Your task to perform on an android device: open app "Messages" (install if not already installed) Image 0: 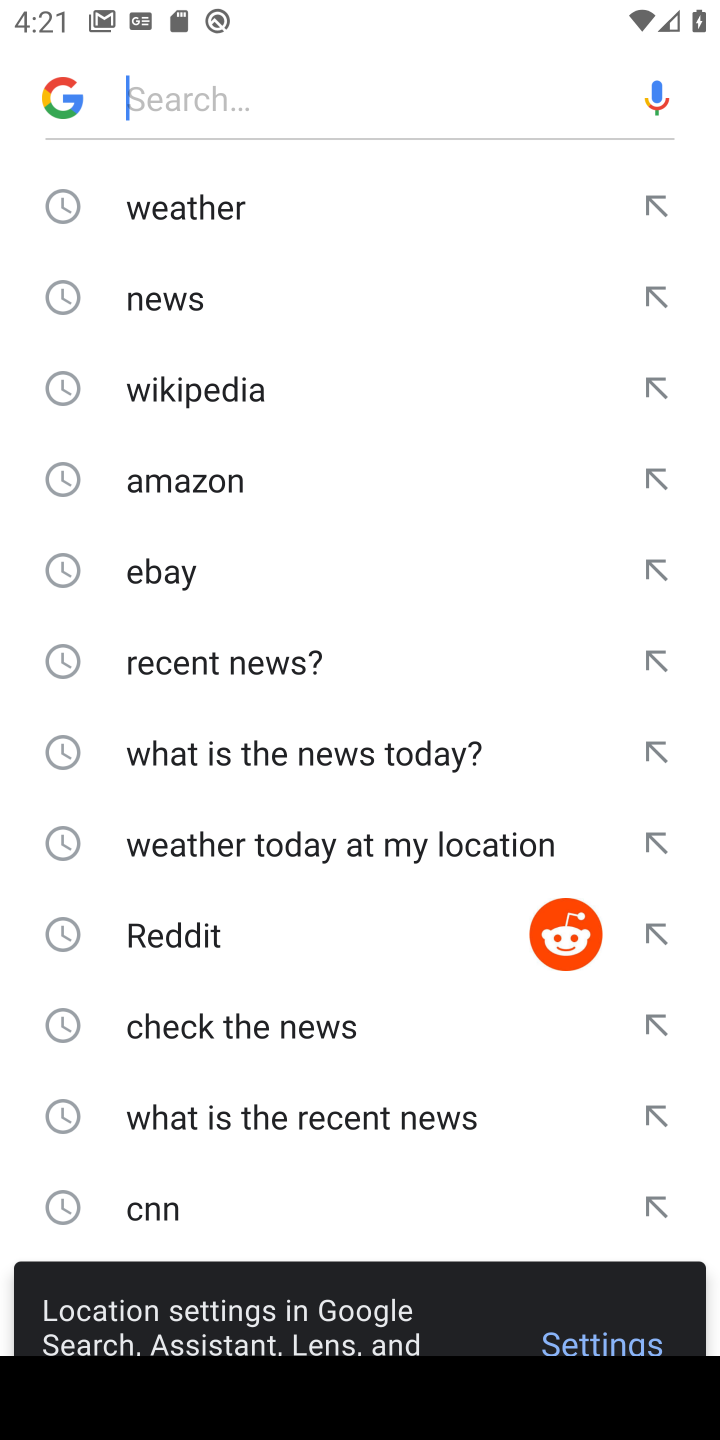
Step 0: press home button
Your task to perform on an android device: open app "Messages" (install if not already installed) Image 1: 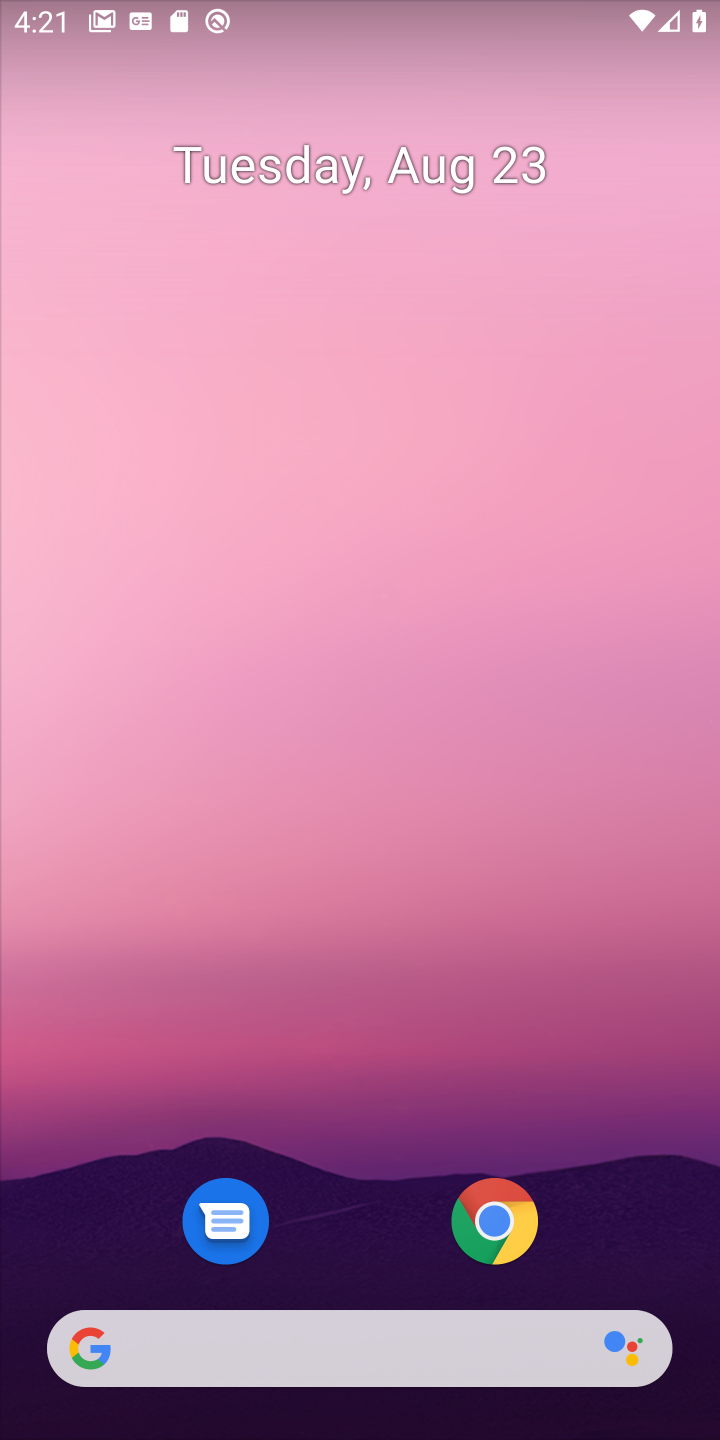
Step 1: drag from (353, 824) to (168, 330)
Your task to perform on an android device: open app "Messages" (install if not already installed) Image 2: 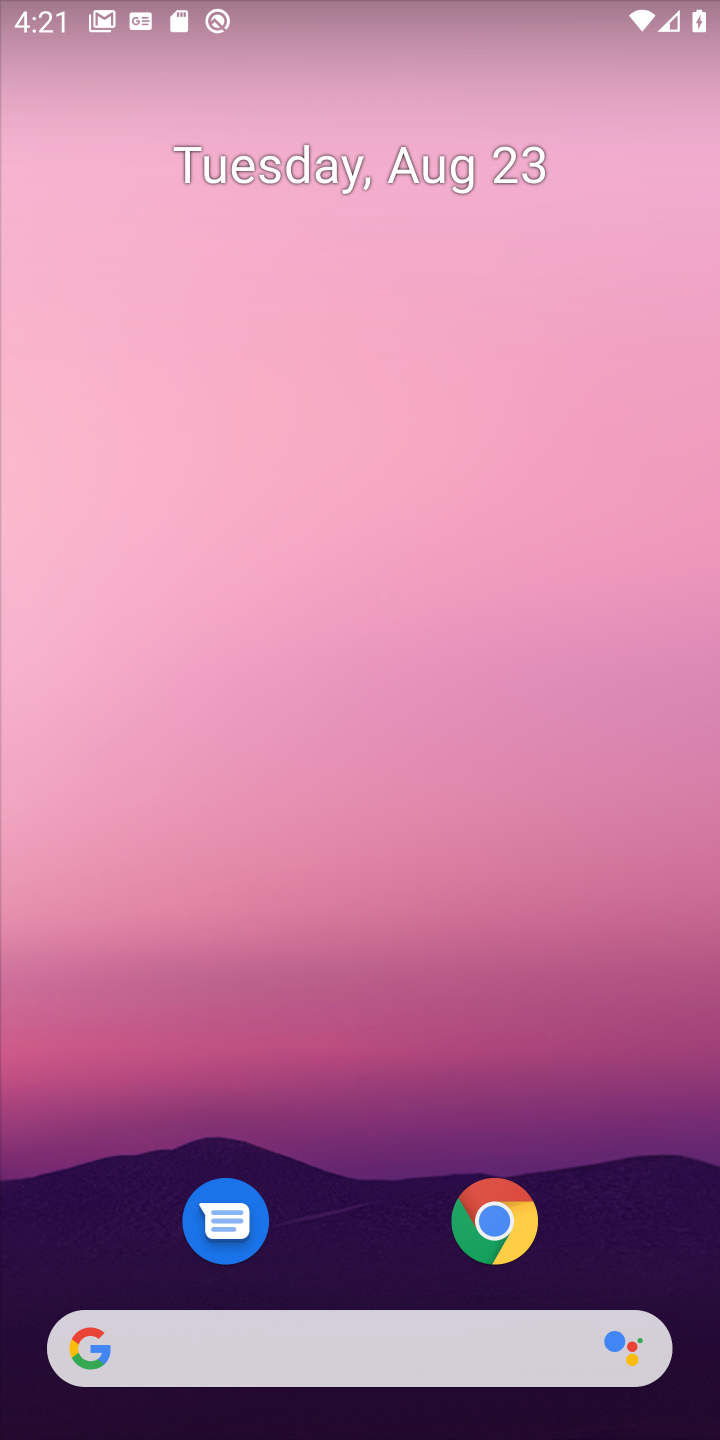
Step 2: click (331, 1125)
Your task to perform on an android device: open app "Messages" (install if not already installed) Image 3: 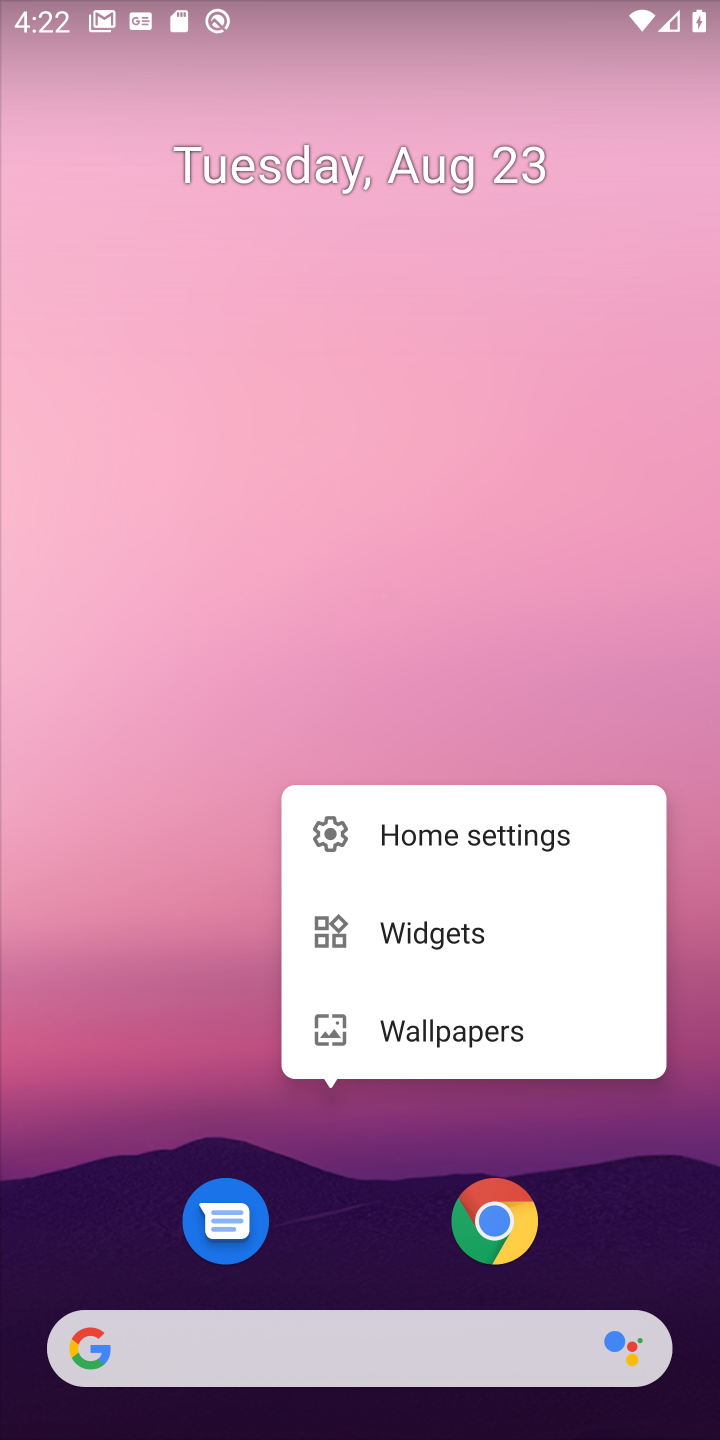
Step 3: click (316, 1222)
Your task to perform on an android device: open app "Messages" (install if not already installed) Image 4: 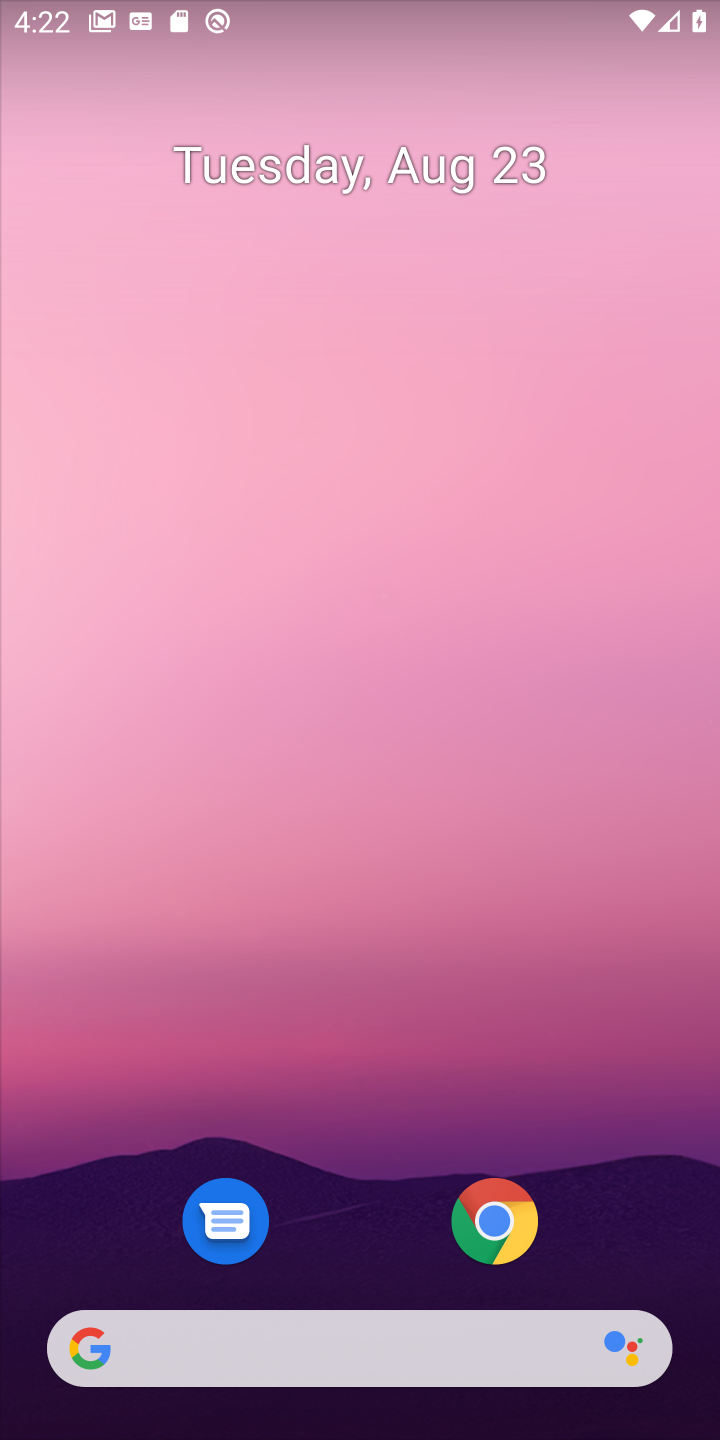
Step 4: click (412, 1220)
Your task to perform on an android device: open app "Messages" (install if not already installed) Image 5: 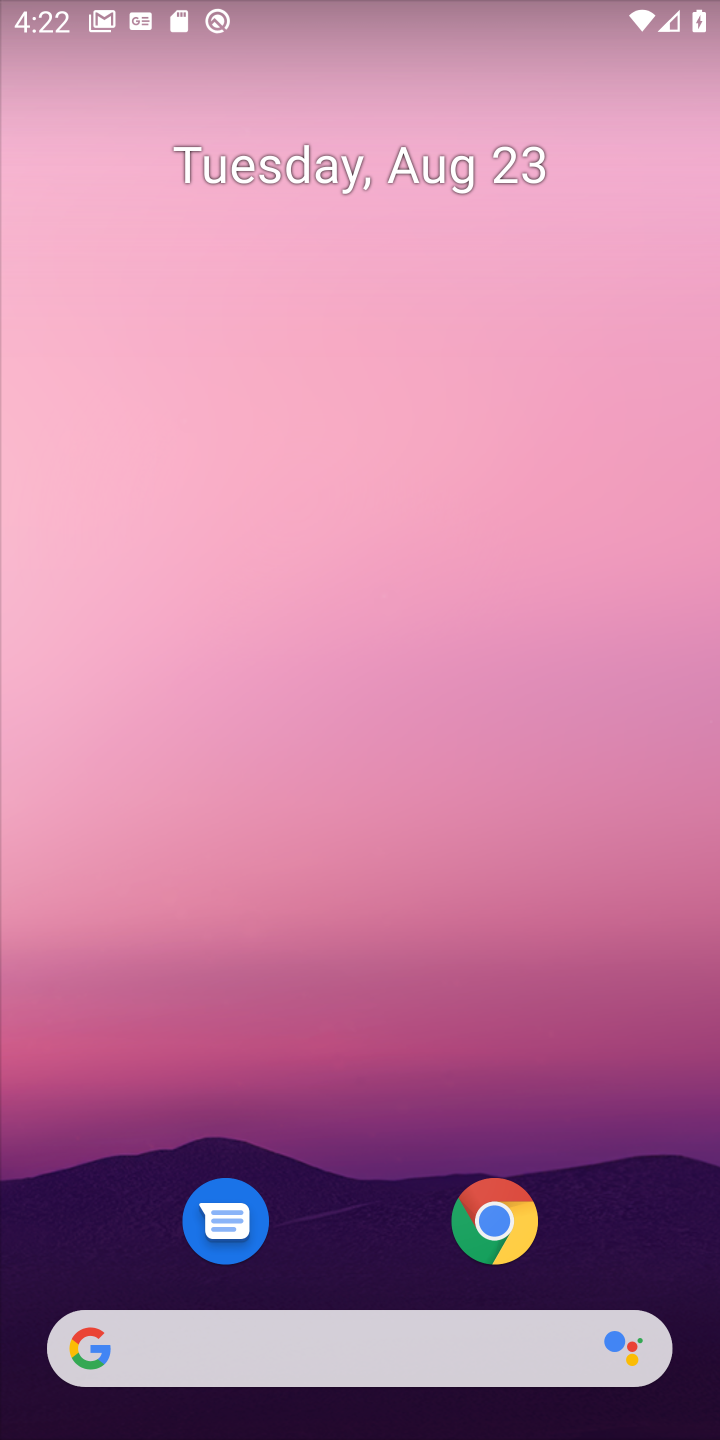
Step 5: drag from (333, 1135) to (305, 14)
Your task to perform on an android device: open app "Messages" (install if not already installed) Image 6: 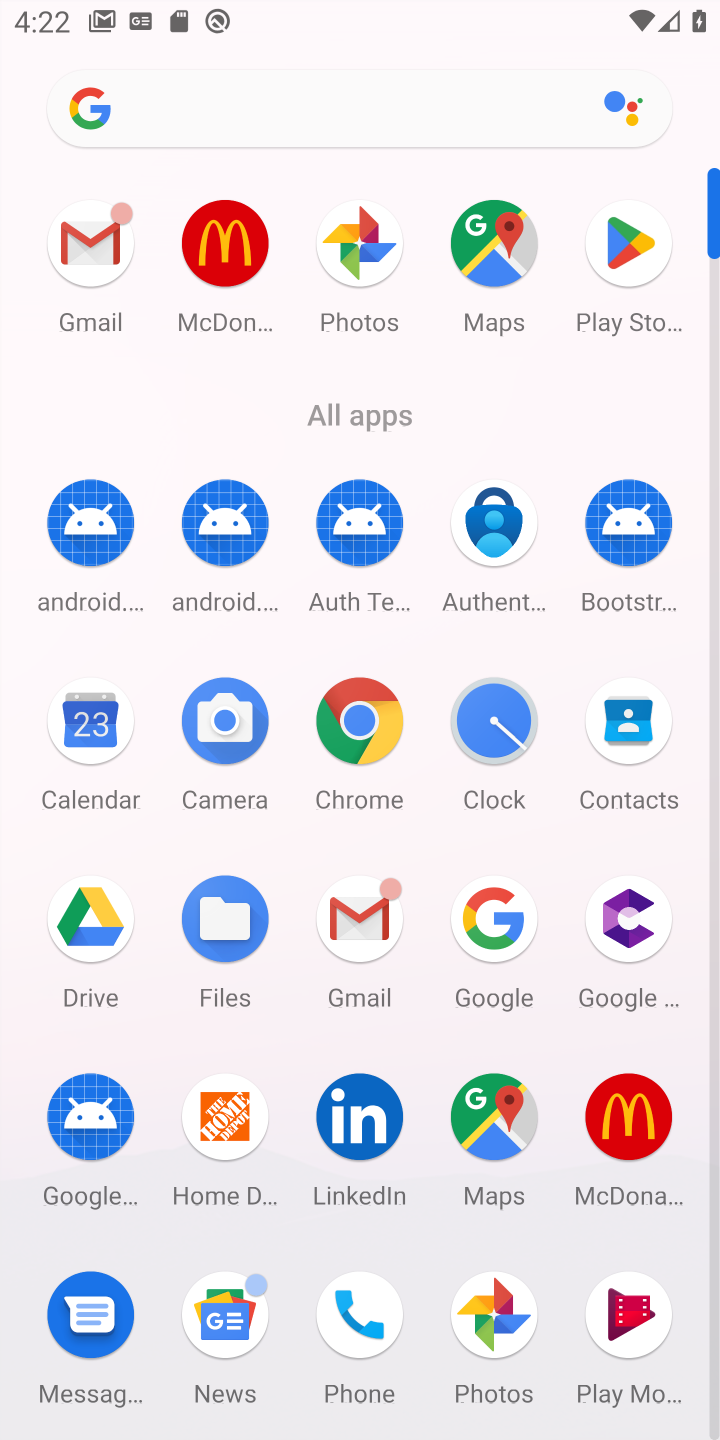
Step 6: click (623, 261)
Your task to perform on an android device: open app "Messages" (install if not already installed) Image 7: 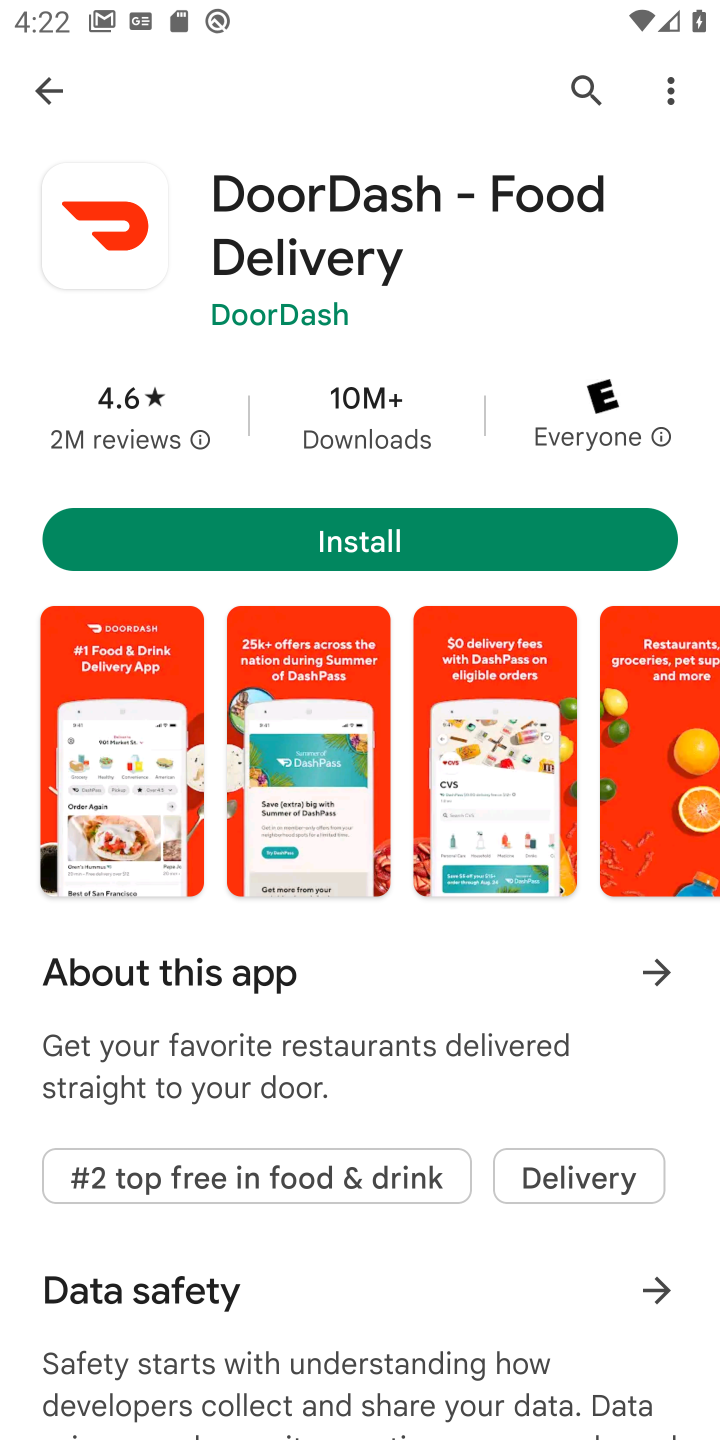
Step 7: click (46, 100)
Your task to perform on an android device: open app "Messages" (install if not already installed) Image 8: 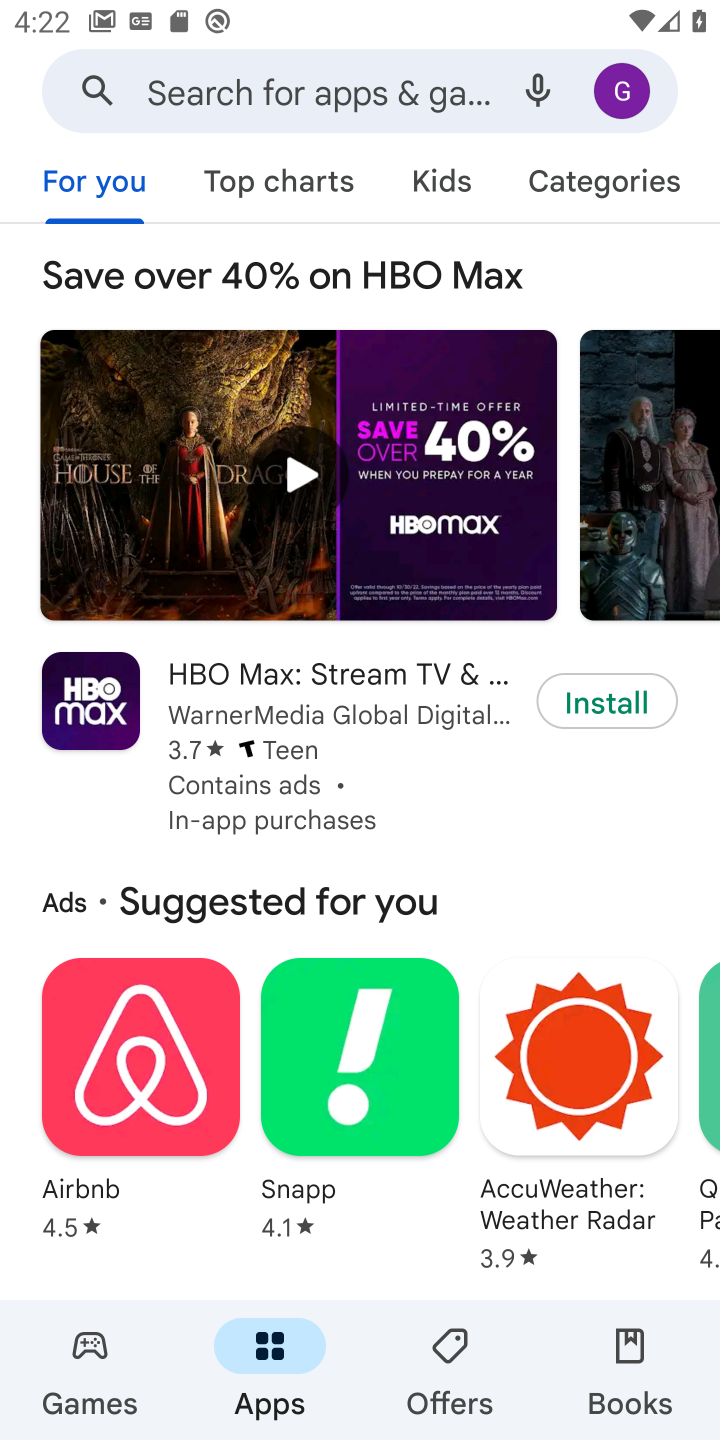
Step 8: click (233, 92)
Your task to perform on an android device: open app "Messages" (install if not already installed) Image 9: 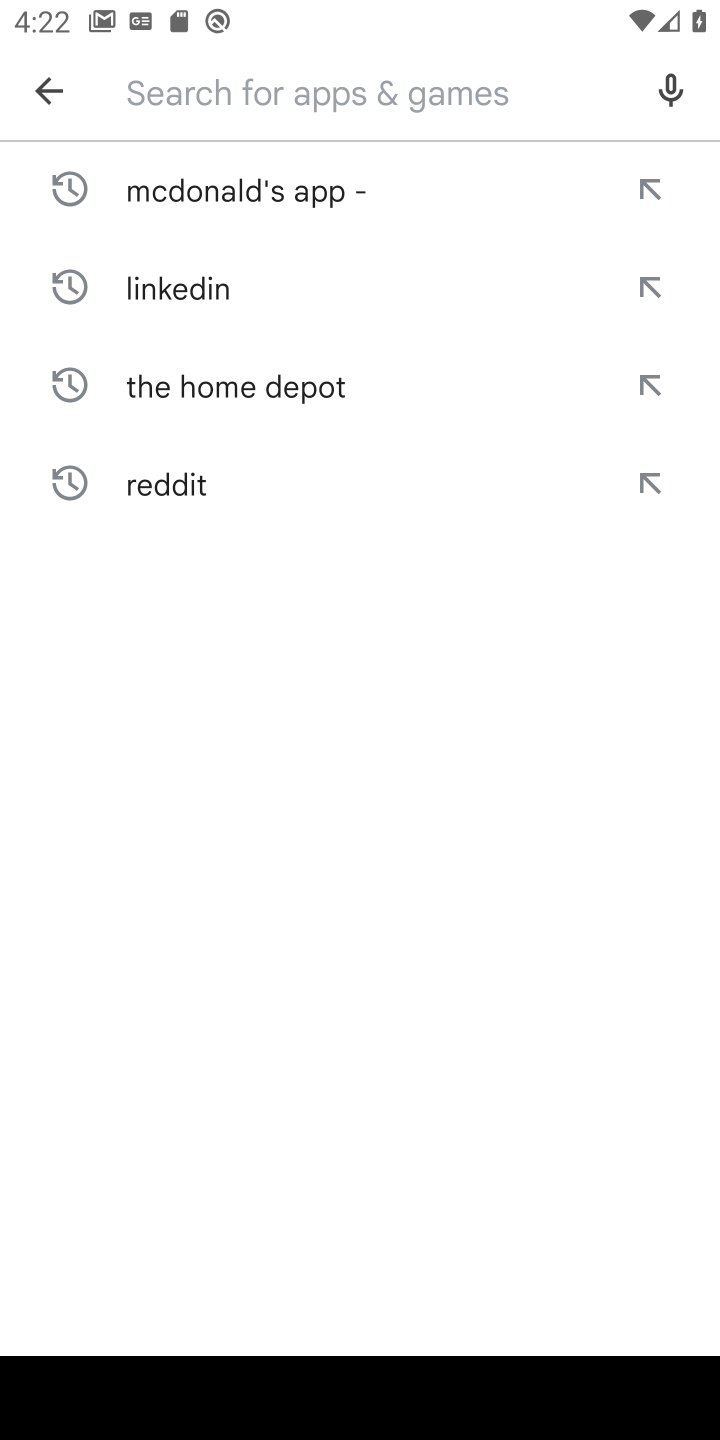
Step 9: type "Messages"
Your task to perform on an android device: open app "Messages" (install if not already installed) Image 10: 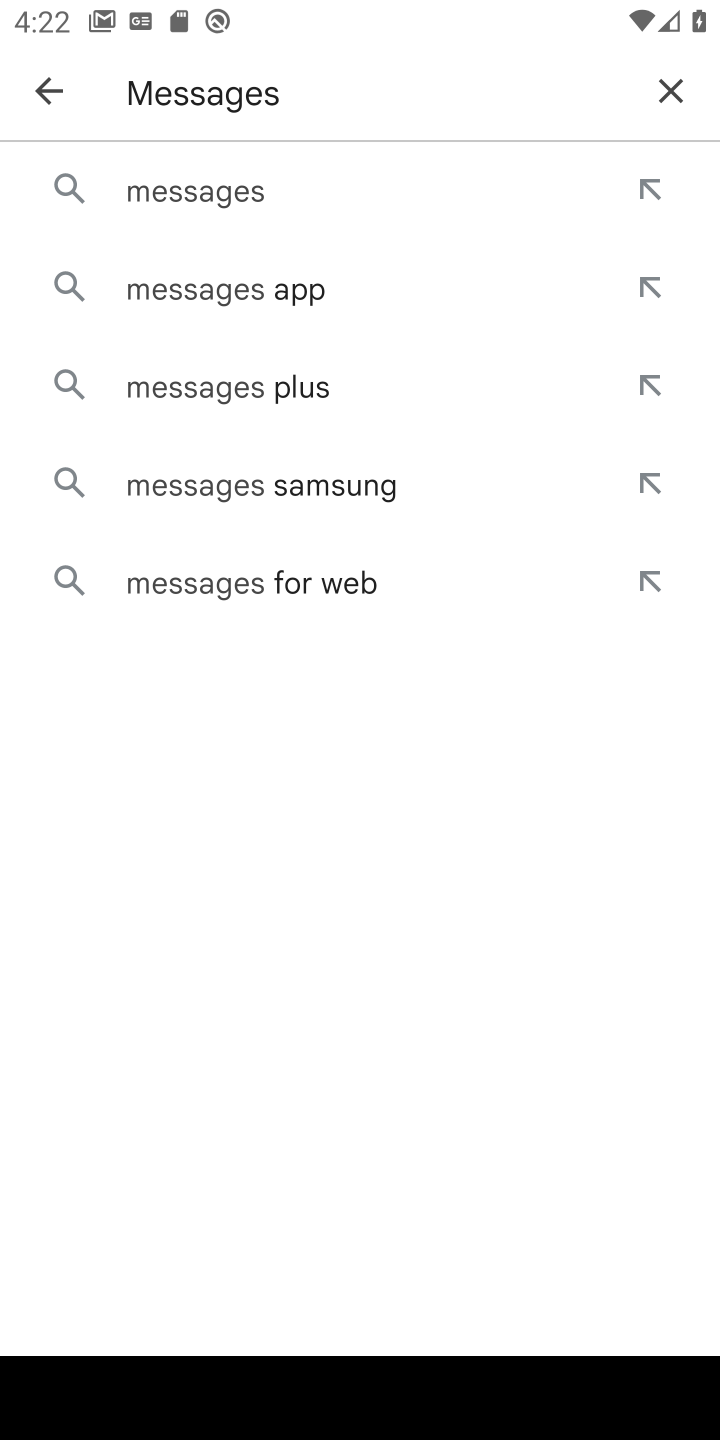
Step 10: click (184, 190)
Your task to perform on an android device: open app "Messages" (install if not already installed) Image 11: 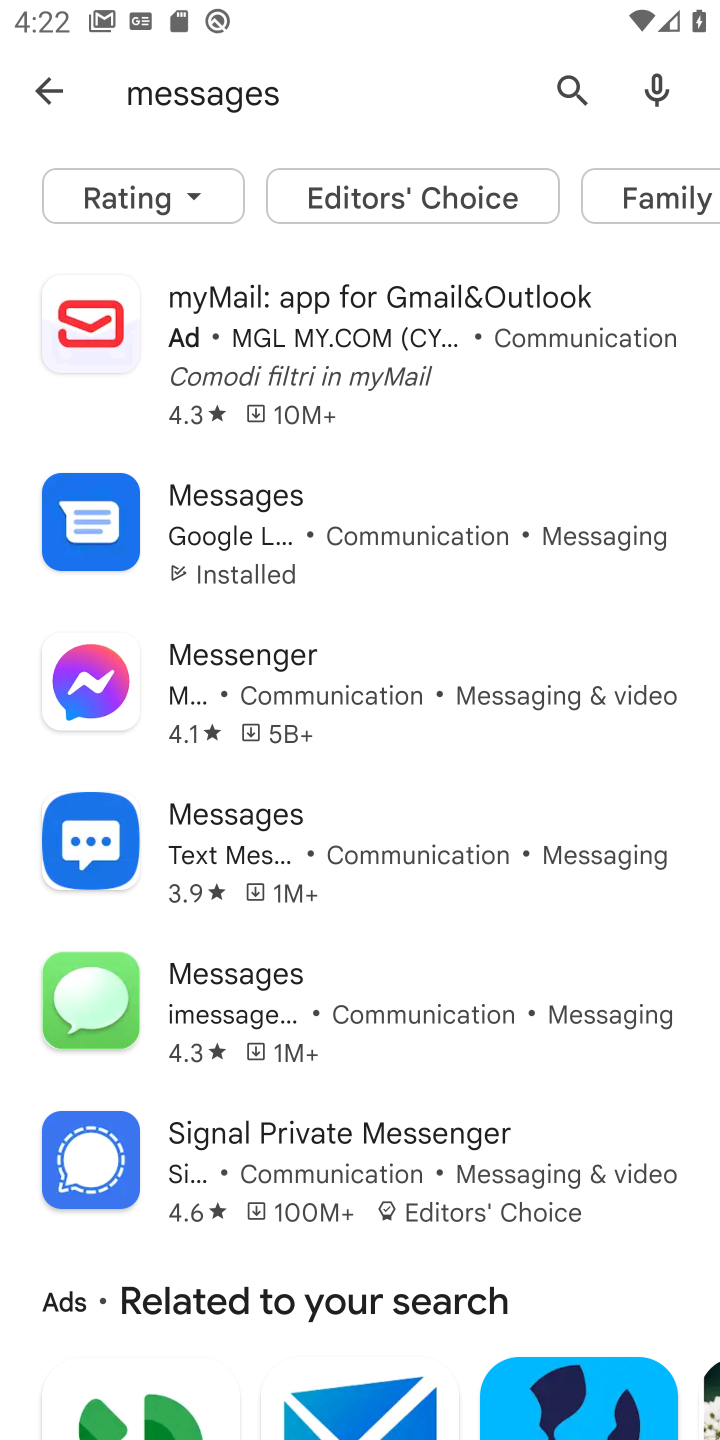
Step 11: click (242, 554)
Your task to perform on an android device: open app "Messages" (install if not already installed) Image 12: 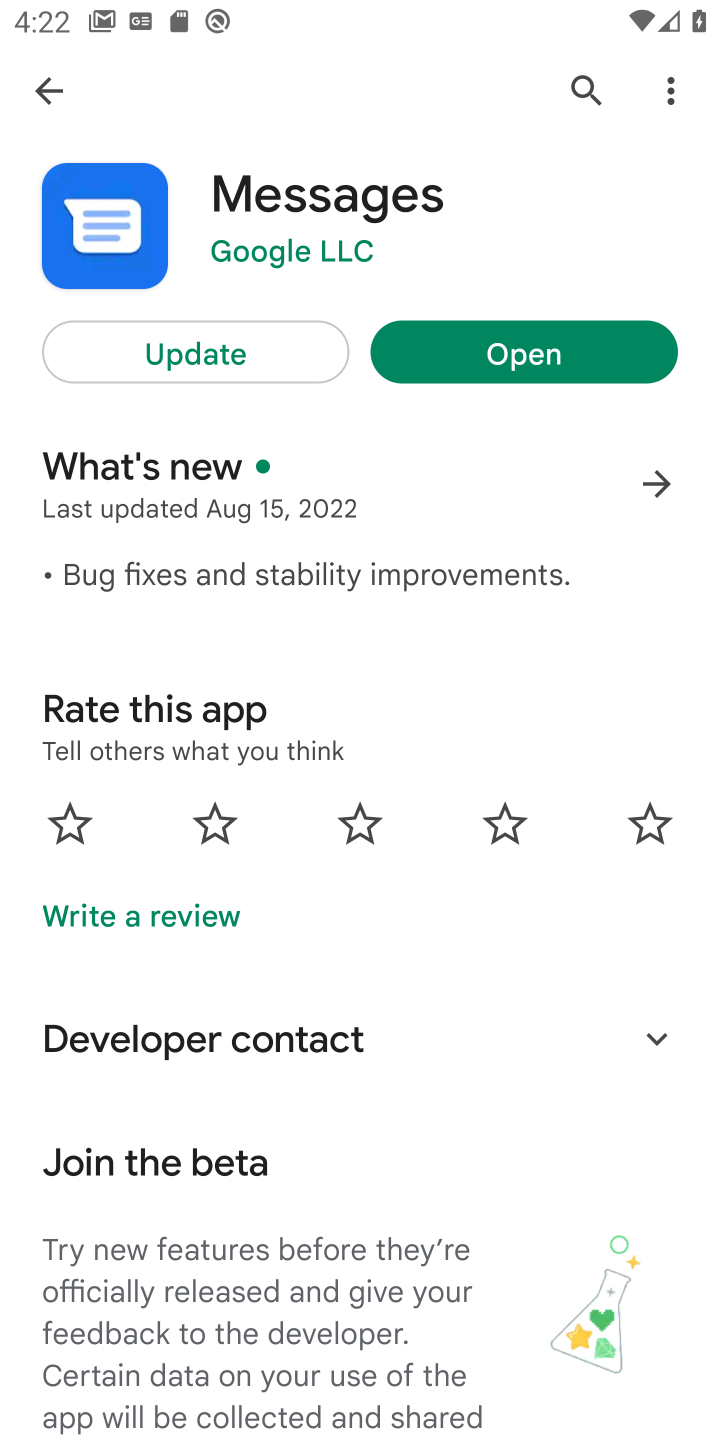
Step 12: click (491, 320)
Your task to perform on an android device: open app "Messages" (install if not already installed) Image 13: 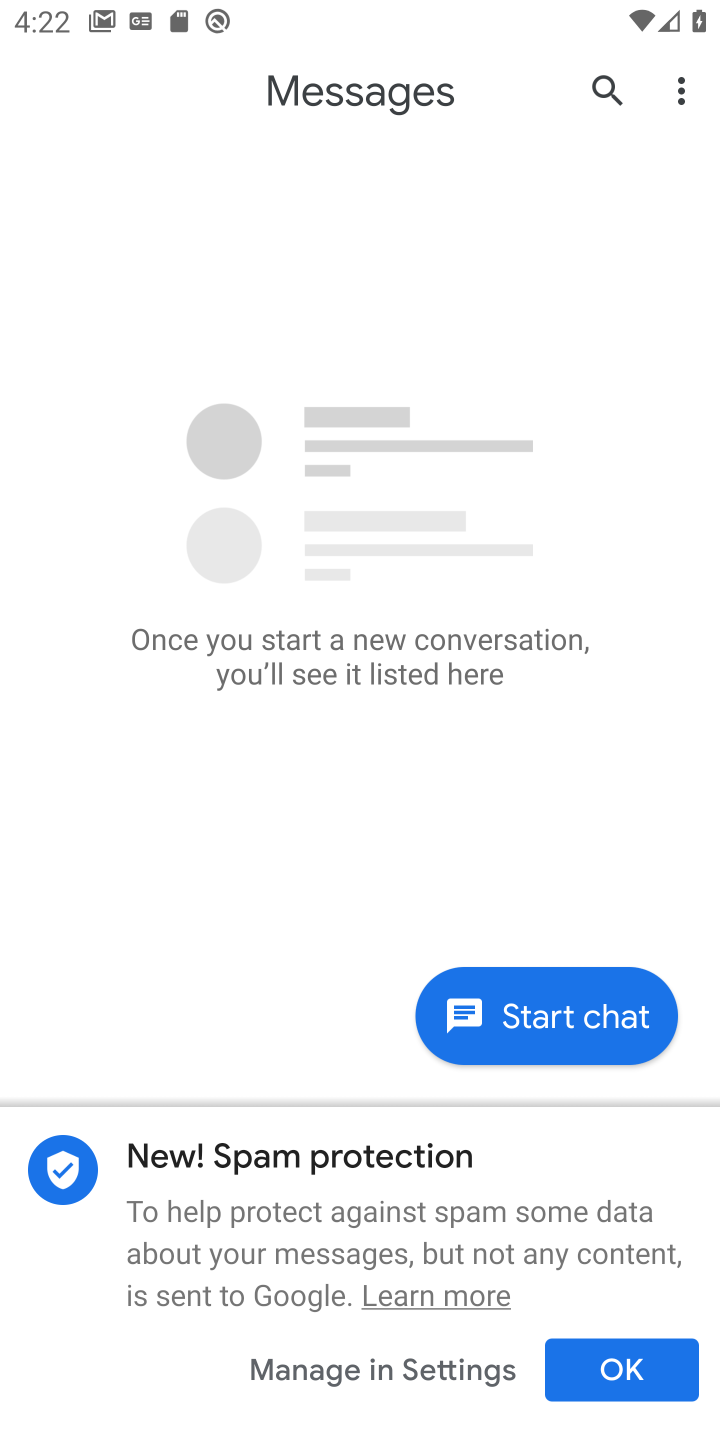
Step 13: task complete